Your task to perform on an android device: turn on javascript in the chrome app Image 0: 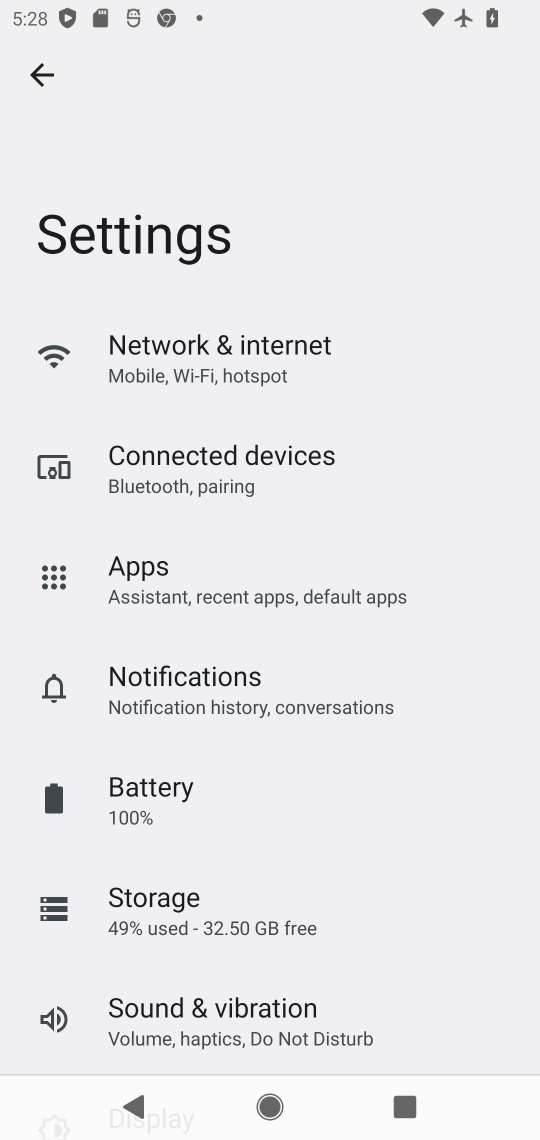
Step 0: press home button
Your task to perform on an android device: turn on javascript in the chrome app Image 1: 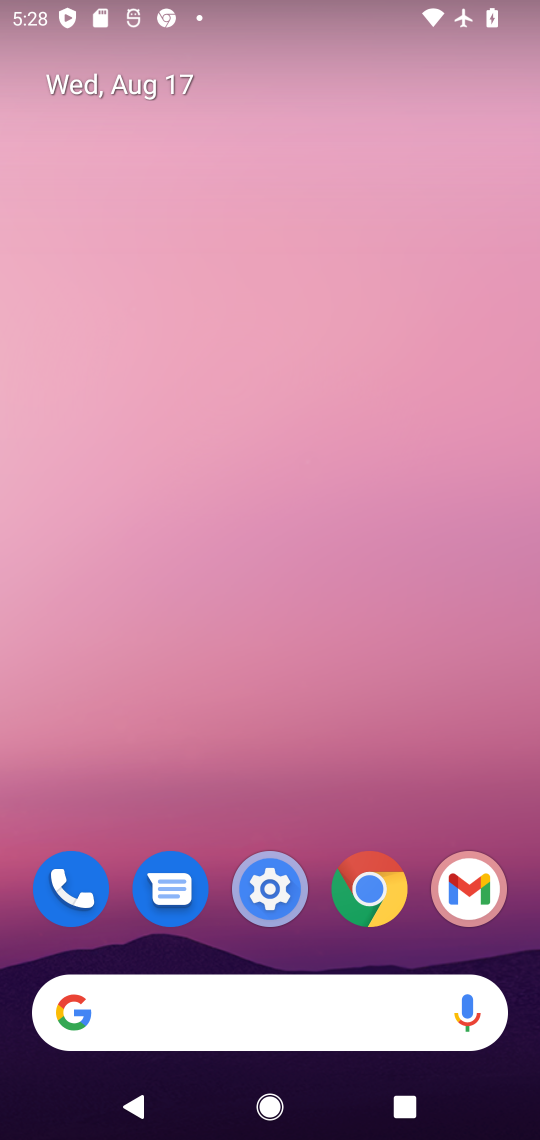
Step 1: click (364, 897)
Your task to perform on an android device: turn on javascript in the chrome app Image 2: 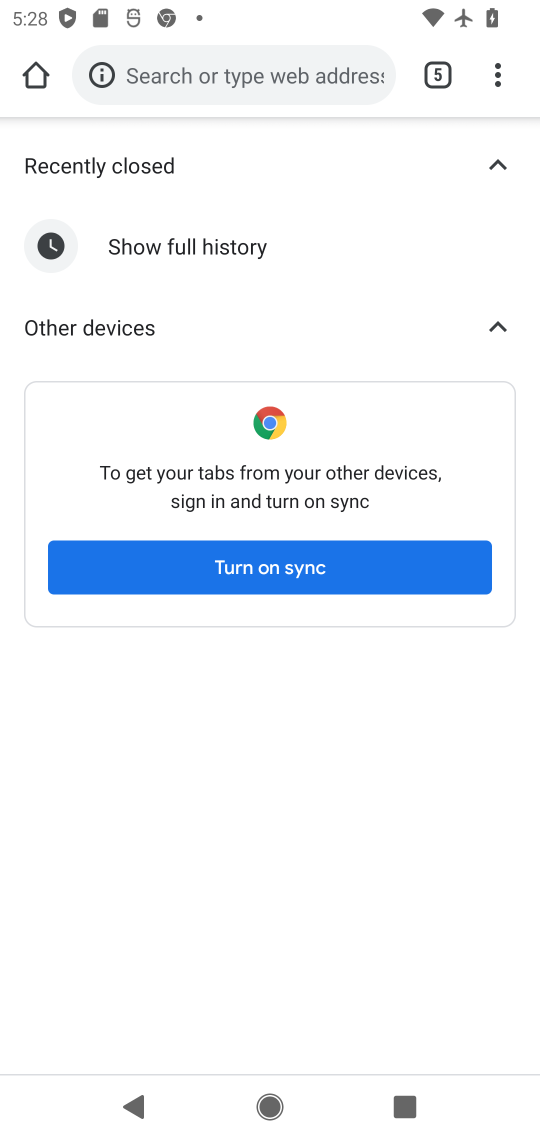
Step 2: click (493, 78)
Your task to perform on an android device: turn on javascript in the chrome app Image 3: 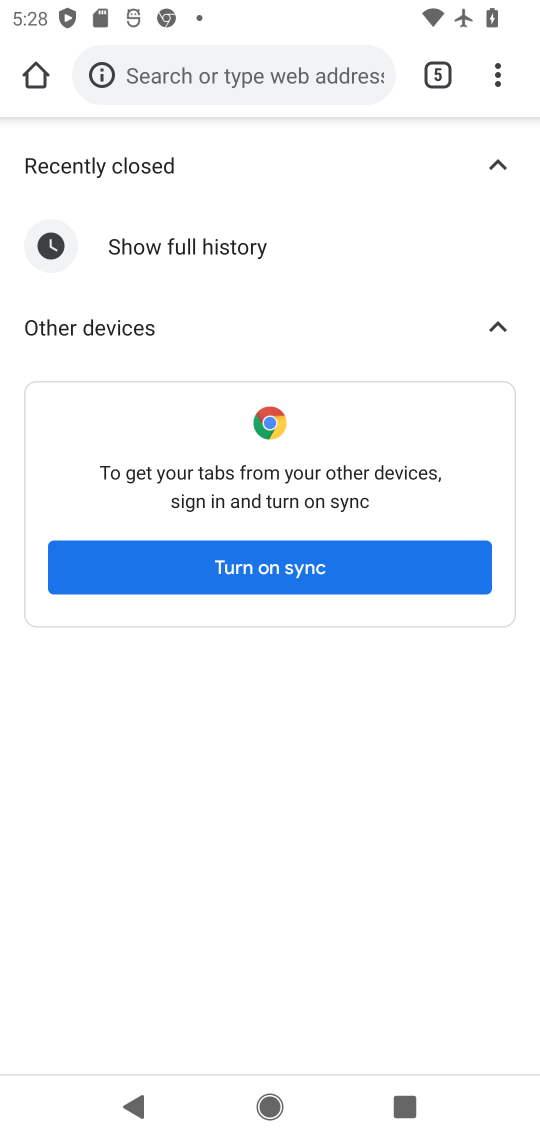
Step 3: click (478, 66)
Your task to perform on an android device: turn on javascript in the chrome app Image 4: 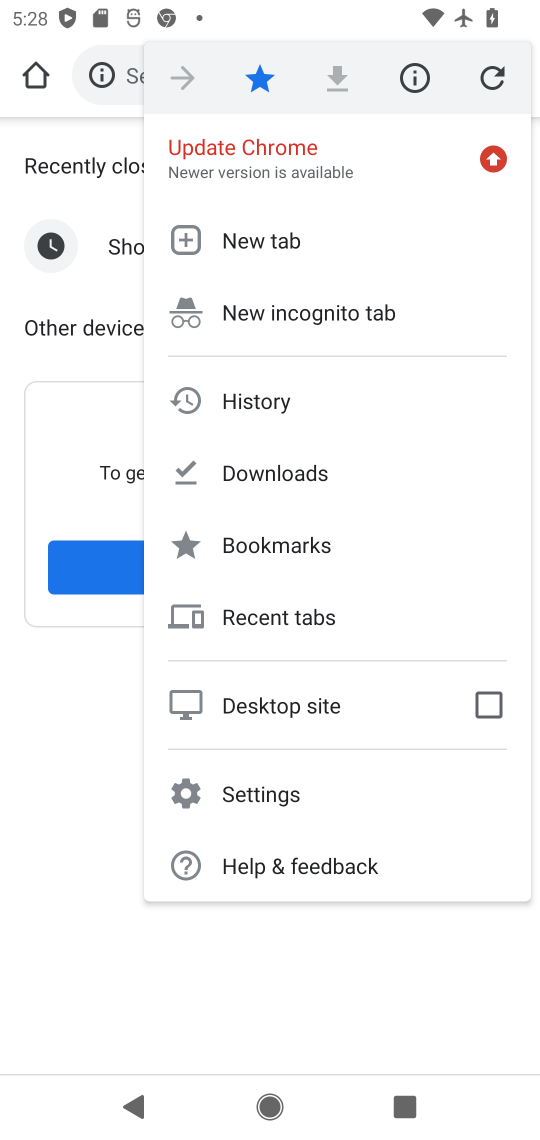
Step 4: click (270, 801)
Your task to perform on an android device: turn on javascript in the chrome app Image 5: 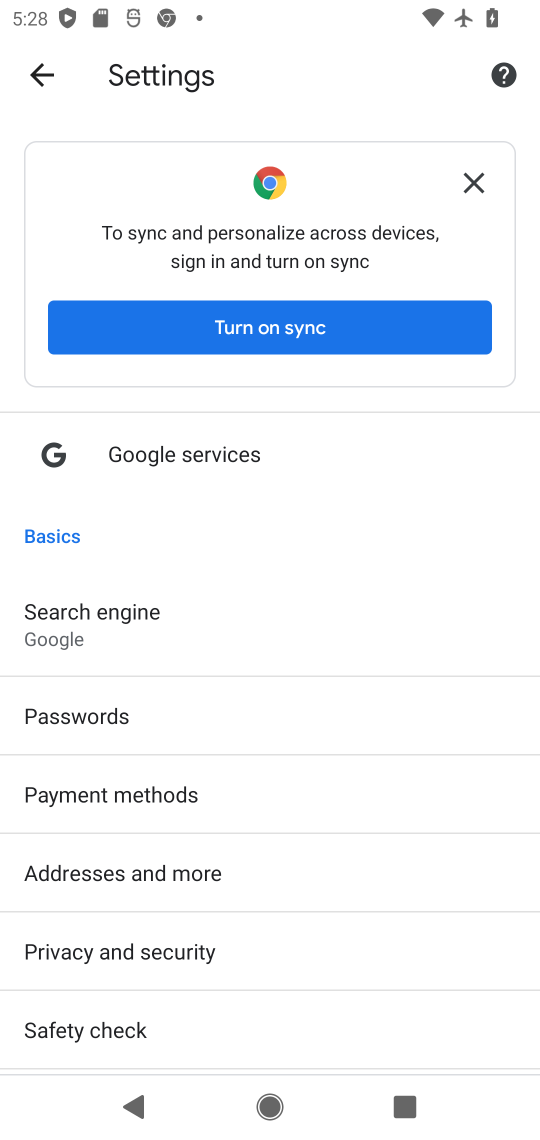
Step 5: drag from (309, 1017) to (247, 515)
Your task to perform on an android device: turn on javascript in the chrome app Image 6: 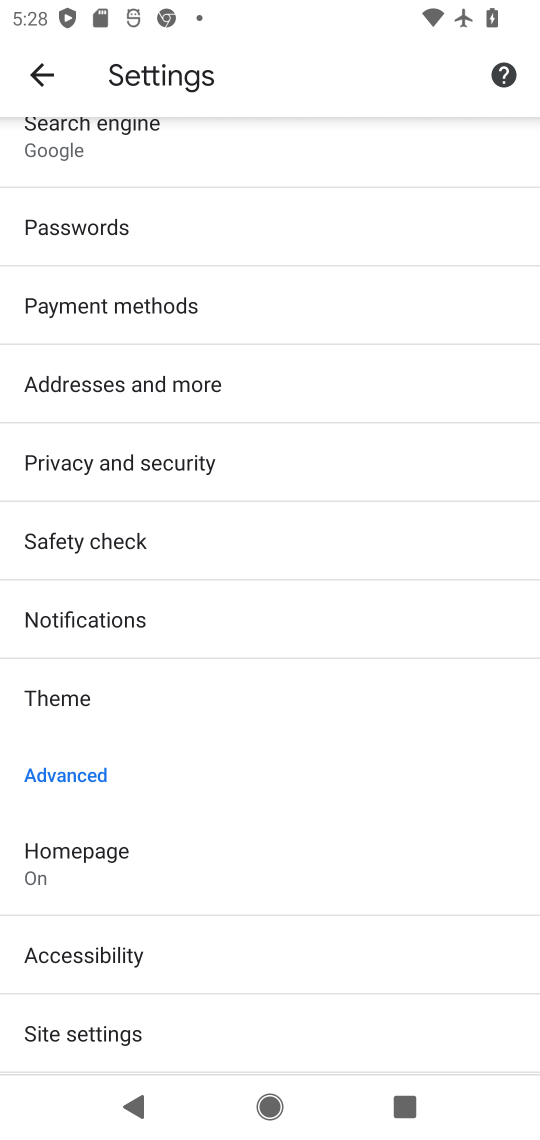
Step 6: drag from (247, 954) to (232, 605)
Your task to perform on an android device: turn on javascript in the chrome app Image 7: 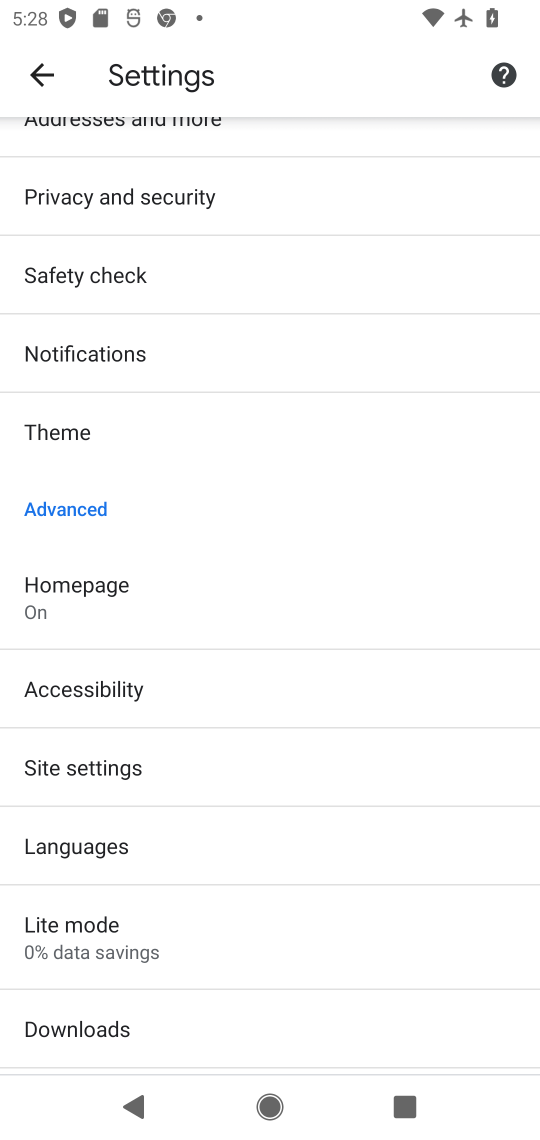
Step 7: click (97, 767)
Your task to perform on an android device: turn on javascript in the chrome app Image 8: 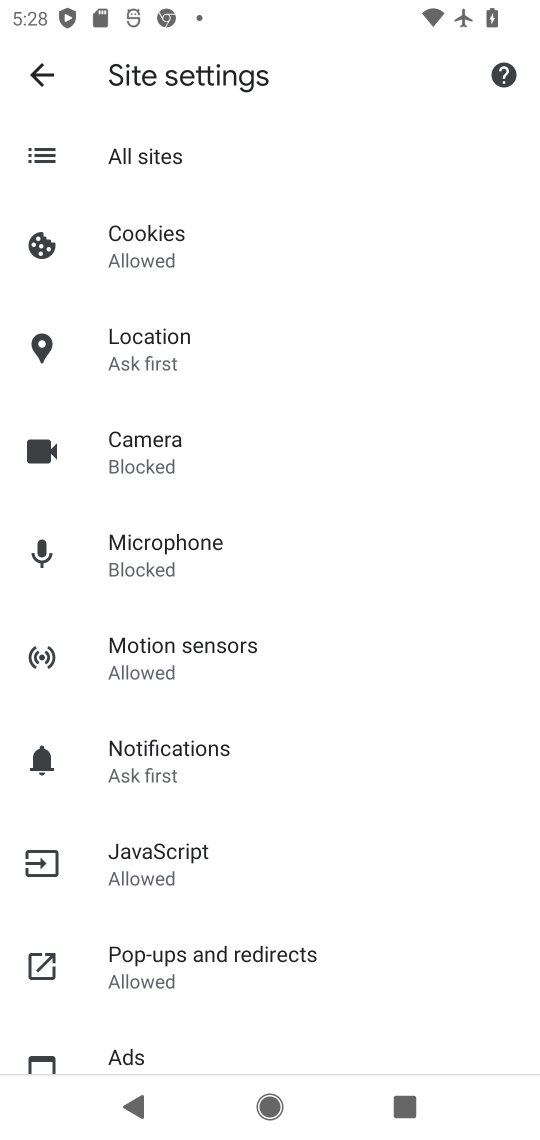
Step 8: click (167, 845)
Your task to perform on an android device: turn on javascript in the chrome app Image 9: 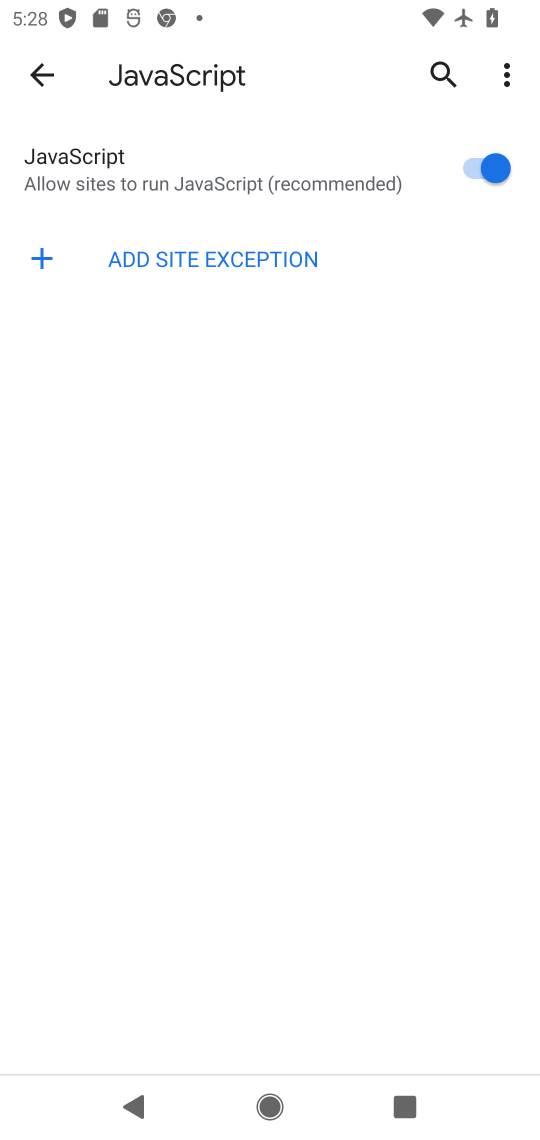
Step 9: task complete